Your task to perform on an android device: Show me the alarms in the clock app Image 0: 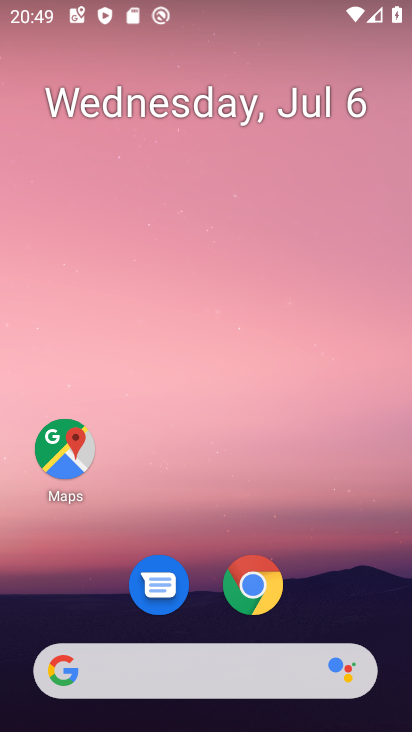
Step 0: drag from (225, 461) to (262, 4)
Your task to perform on an android device: Show me the alarms in the clock app Image 1: 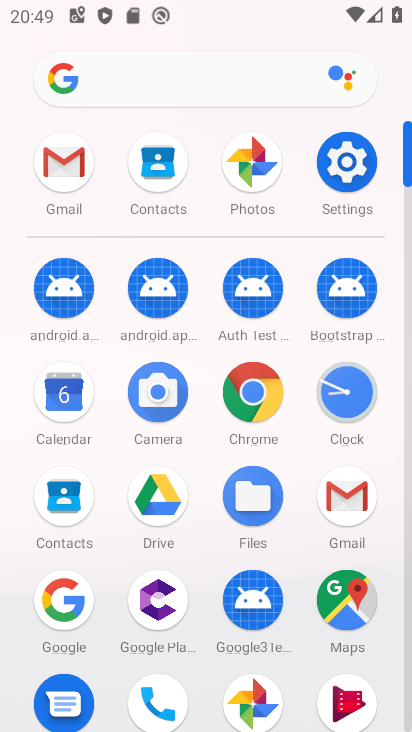
Step 1: click (353, 390)
Your task to perform on an android device: Show me the alarms in the clock app Image 2: 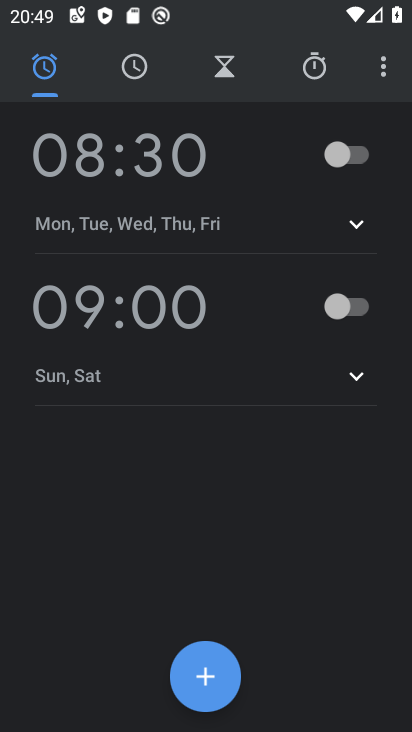
Step 2: task complete